Your task to perform on an android device: toggle notifications settings in the gmail app Image 0: 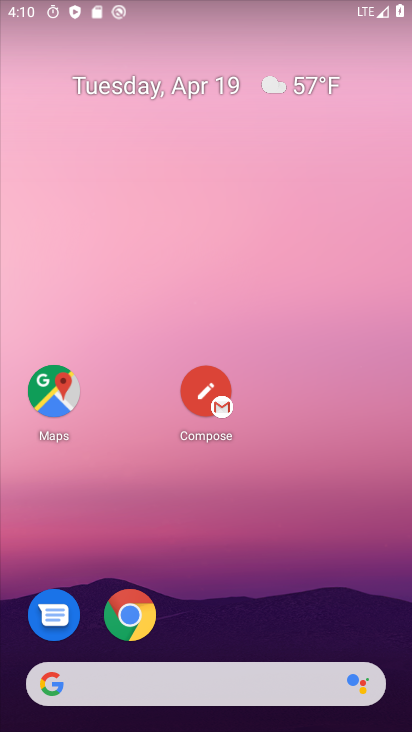
Step 0: drag from (265, 662) to (269, 30)
Your task to perform on an android device: toggle notifications settings in the gmail app Image 1: 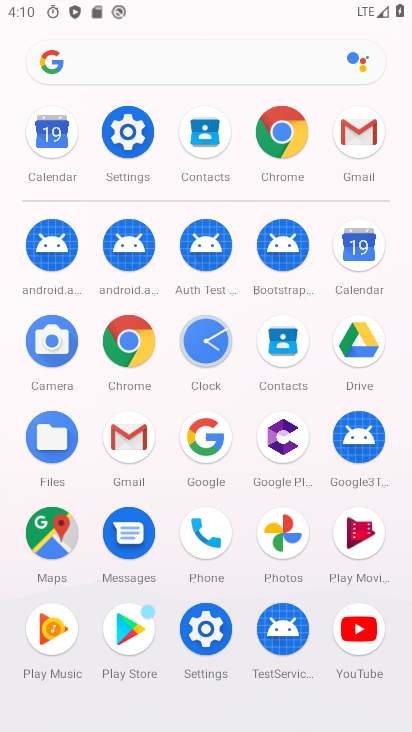
Step 1: click (133, 444)
Your task to perform on an android device: toggle notifications settings in the gmail app Image 2: 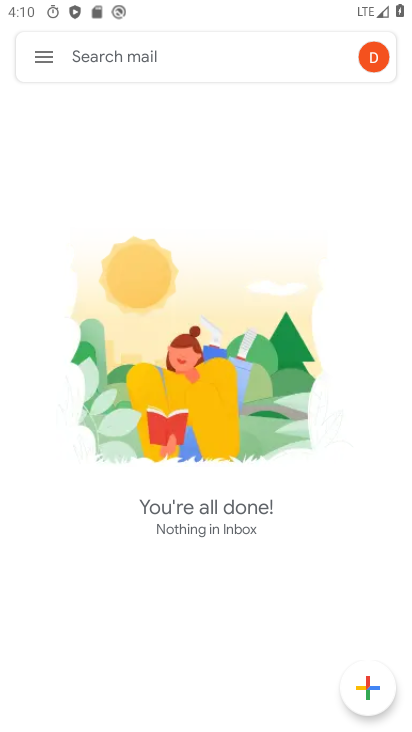
Step 2: click (38, 58)
Your task to perform on an android device: toggle notifications settings in the gmail app Image 3: 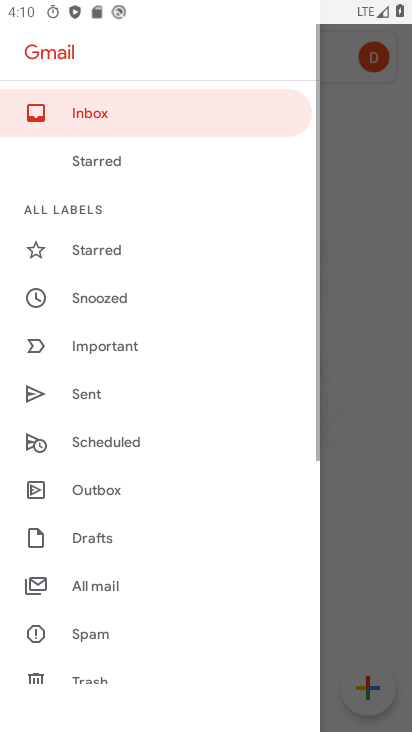
Step 3: drag from (133, 583) to (255, 37)
Your task to perform on an android device: toggle notifications settings in the gmail app Image 4: 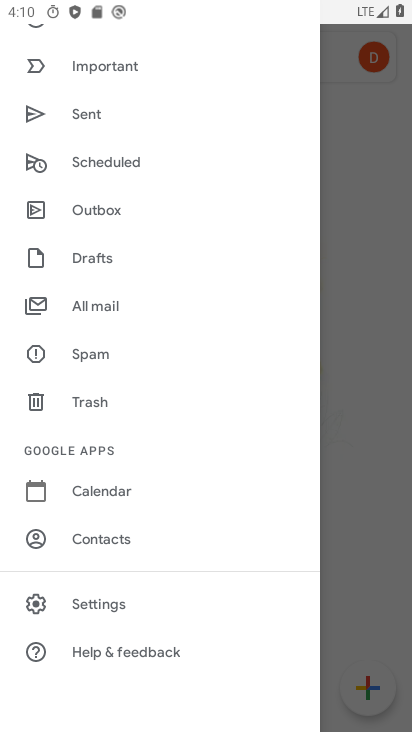
Step 4: click (118, 602)
Your task to perform on an android device: toggle notifications settings in the gmail app Image 5: 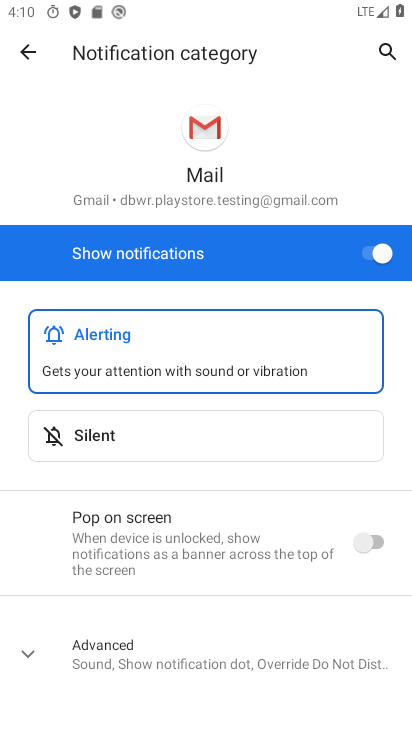
Step 5: drag from (198, 610) to (177, 297)
Your task to perform on an android device: toggle notifications settings in the gmail app Image 6: 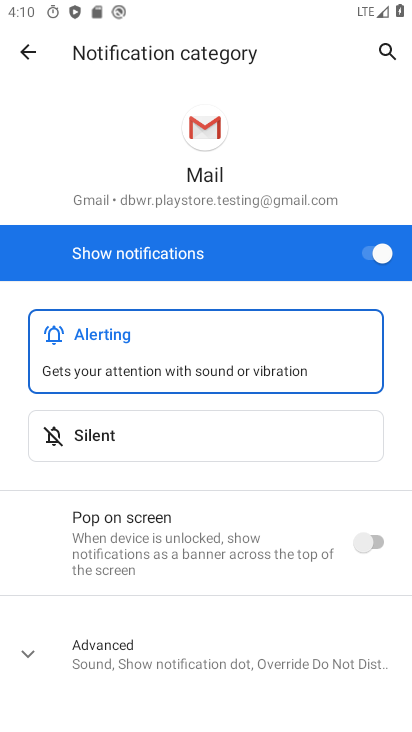
Step 6: click (371, 248)
Your task to perform on an android device: toggle notifications settings in the gmail app Image 7: 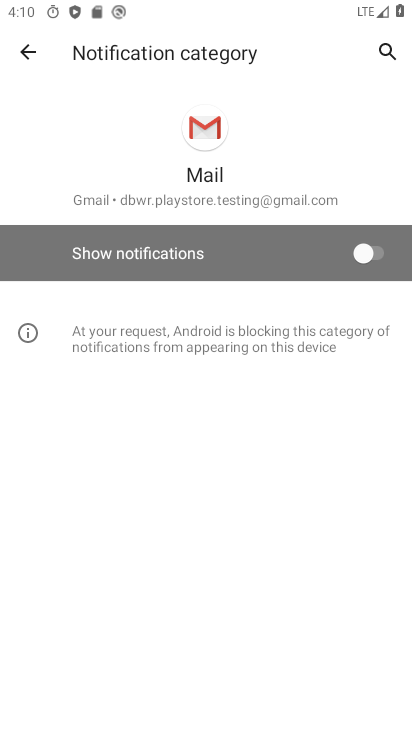
Step 7: task complete